Your task to perform on an android device: Open the calendar and show me this week's events? Image 0: 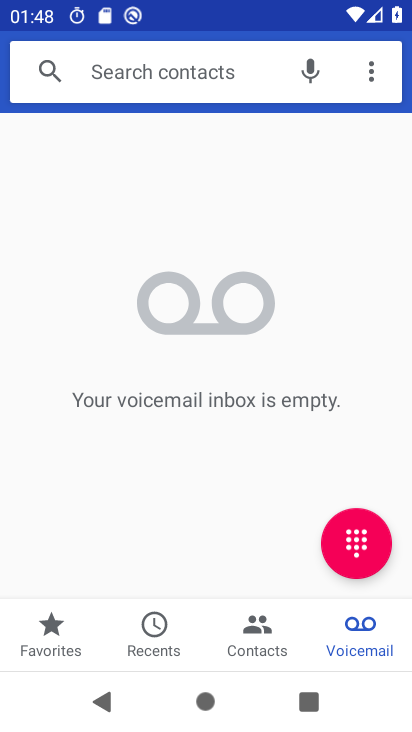
Step 0: press home button
Your task to perform on an android device: Open the calendar and show me this week's events? Image 1: 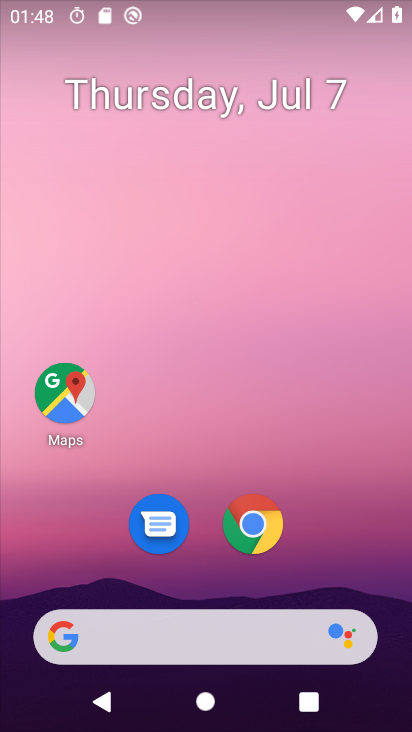
Step 1: drag from (318, 551) to (310, 16)
Your task to perform on an android device: Open the calendar and show me this week's events? Image 2: 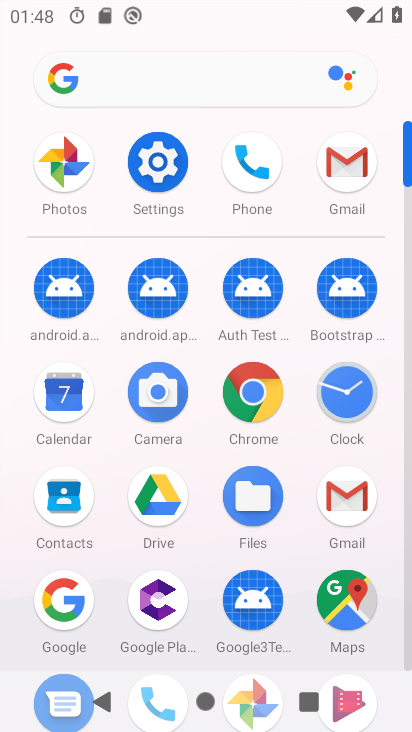
Step 2: click (49, 386)
Your task to perform on an android device: Open the calendar and show me this week's events? Image 3: 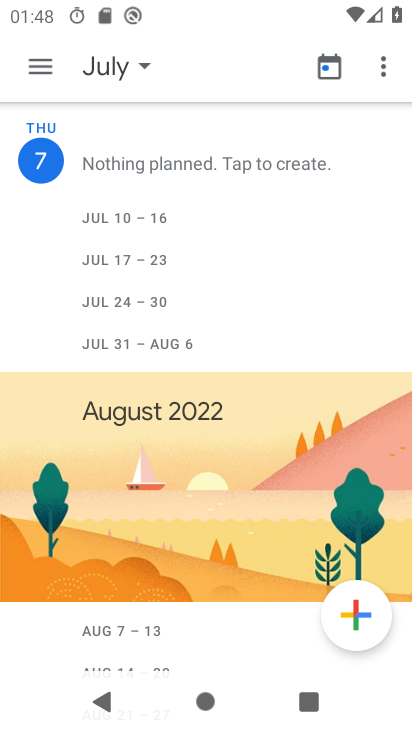
Step 3: task complete